Your task to perform on an android device: uninstall "DuckDuckGo Privacy Browser" Image 0: 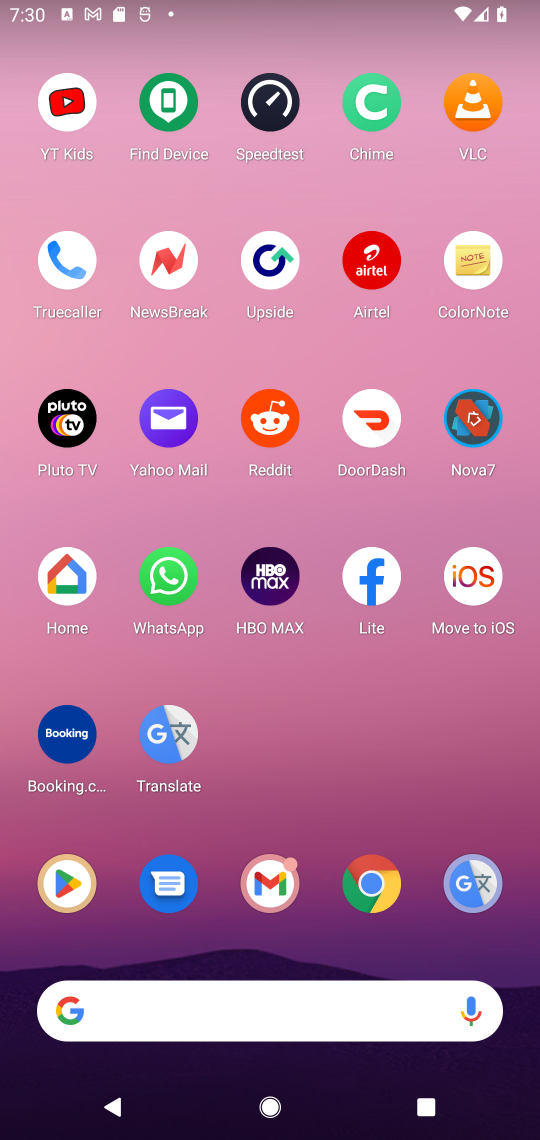
Step 0: click (83, 898)
Your task to perform on an android device: uninstall "DuckDuckGo Privacy Browser" Image 1: 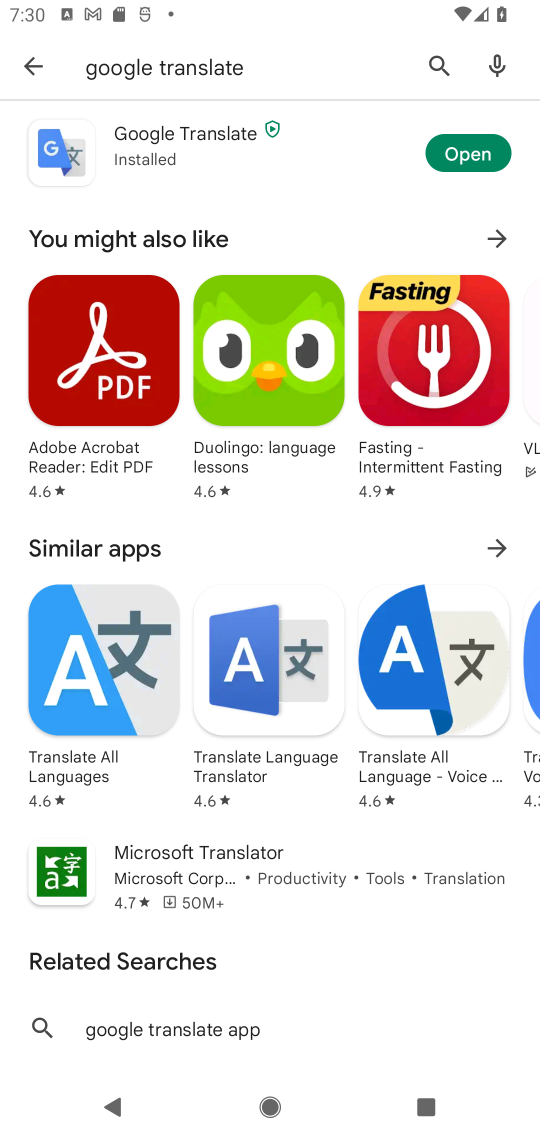
Step 1: click (430, 67)
Your task to perform on an android device: uninstall "DuckDuckGo Privacy Browser" Image 2: 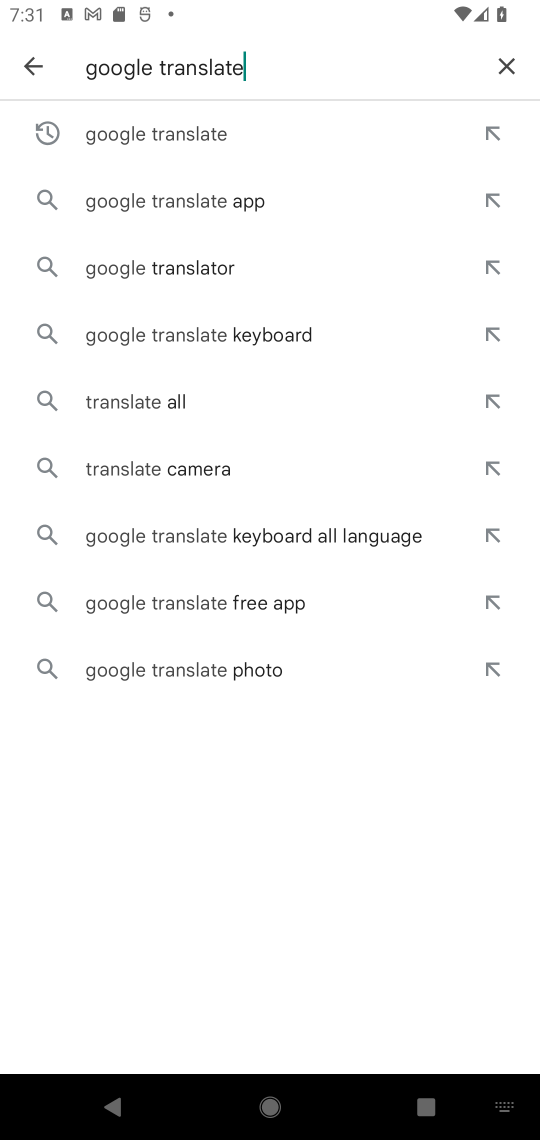
Step 2: click (507, 63)
Your task to perform on an android device: uninstall "DuckDuckGo Privacy Browser" Image 3: 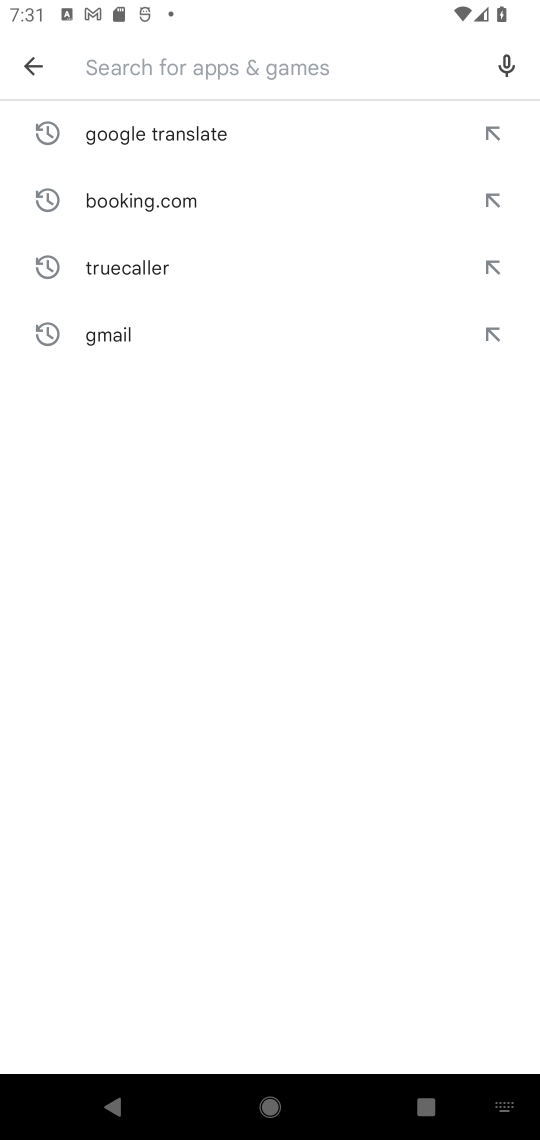
Step 3: click (172, 53)
Your task to perform on an android device: uninstall "DuckDuckGo Privacy Browser" Image 4: 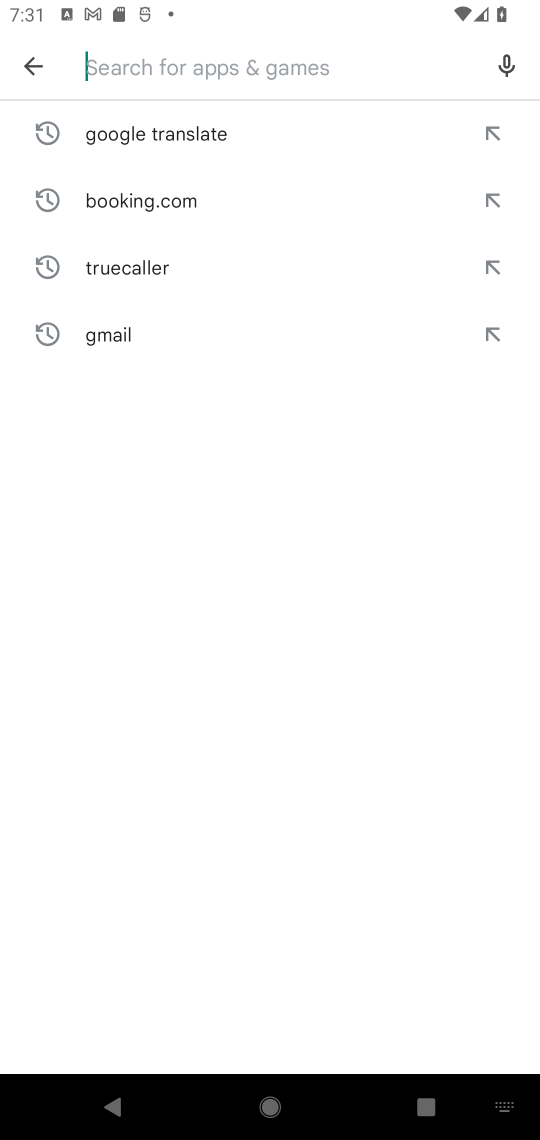
Step 4: type "duckduck go"
Your task to perform on an android device: uninstall "DuckDuckGo Privacy Browser" Image 5: 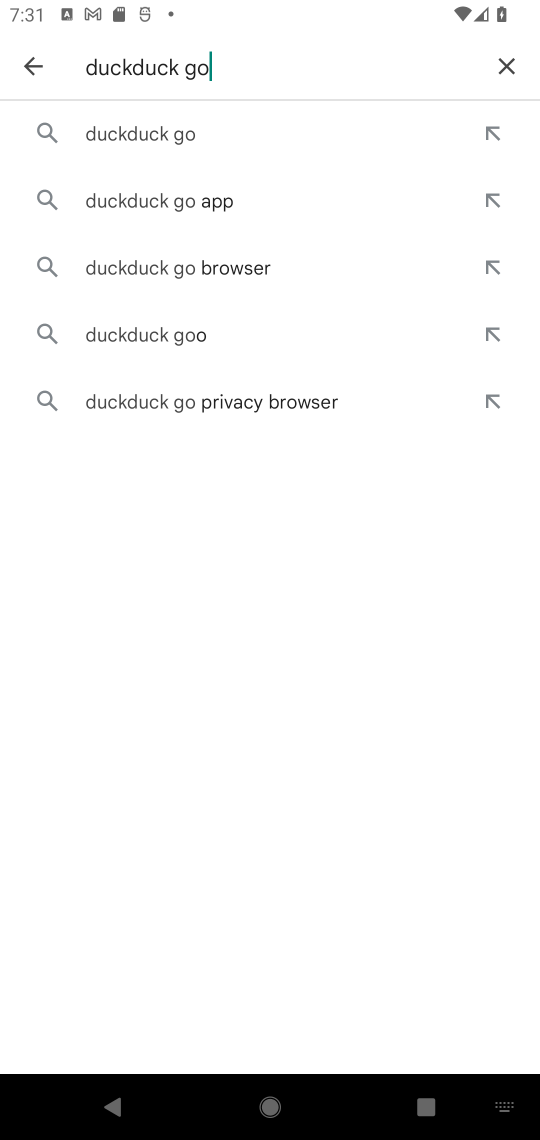
Step 5: click (184, 138)
Your task to perform on an android device: uninstall "DuckDuckGo Privacy Browser" Image 6: 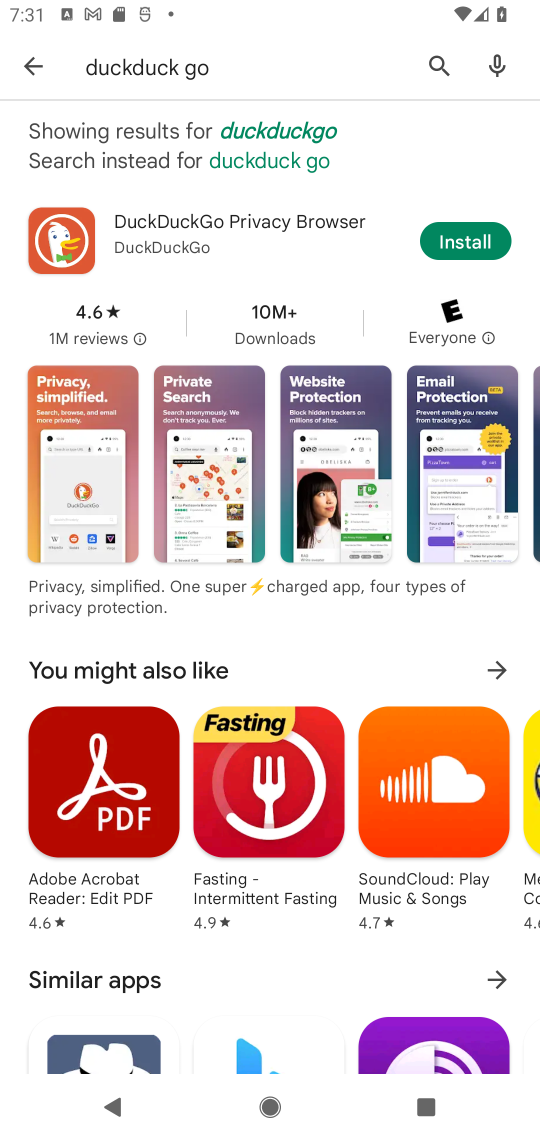
Step 6: task complete